Your task to perform on an android device: Open the stopwatch Image 0: 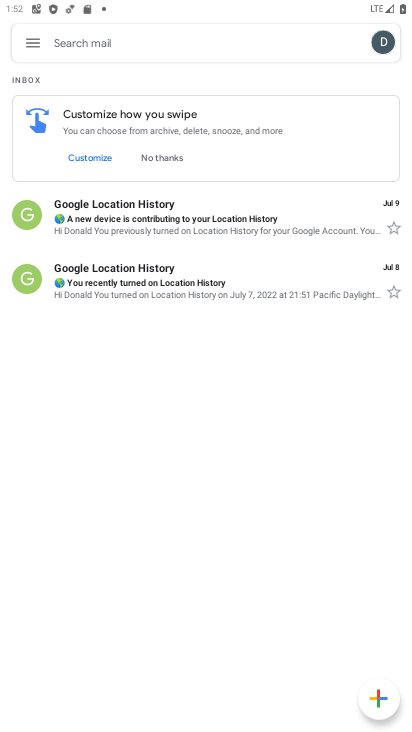
Step 0: press home button
Your task to perform on an android device: Open the stopwatch Image 1: 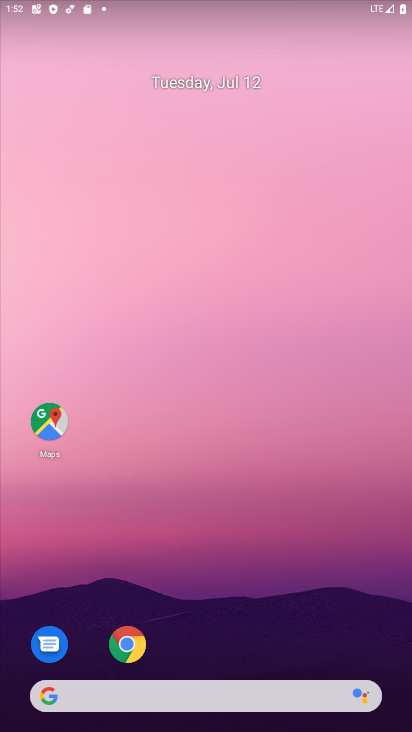
Step 1: drag from (229, 671) to (157, 263)
Your task to perform on an android device: Open the stopwatch Image 2: 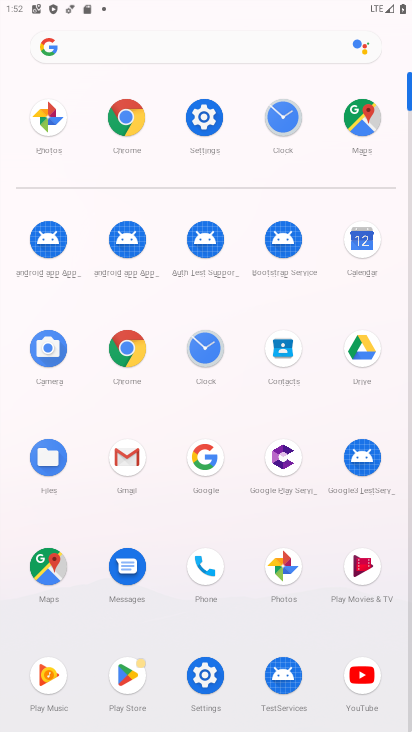
Step 2: click (206, 312)
Your task to perform on an android device: Open the stopwatch Image 3: 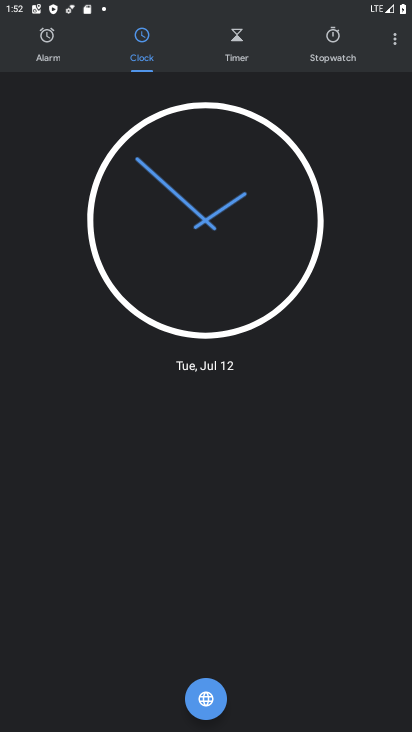
Step 3: click (335, 44)
Your task to perform on an android device: Open the stopwatch Image 4: 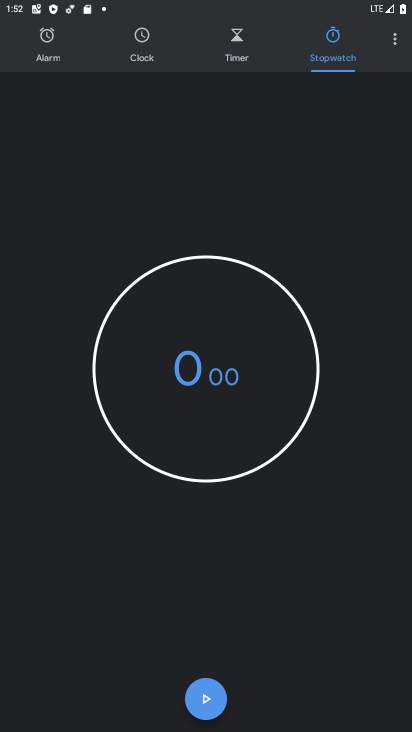
Step 4: task complete